Your task to perform on an android device: change notification settings in the gmail app Image 0: 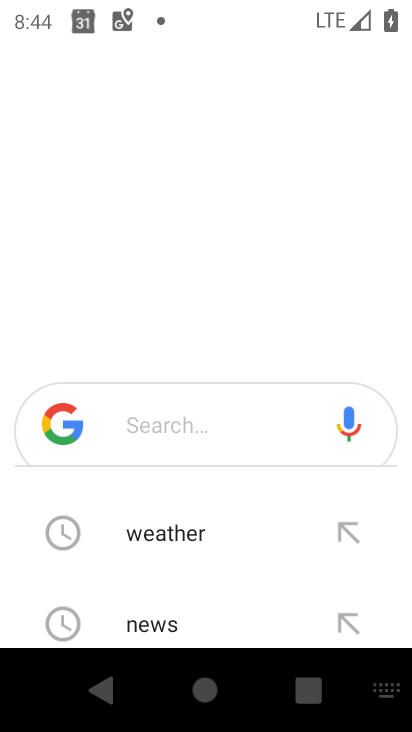
Step 0: press back button
Your task to perform on an android device: change notification settings in the gmail app Image 1: 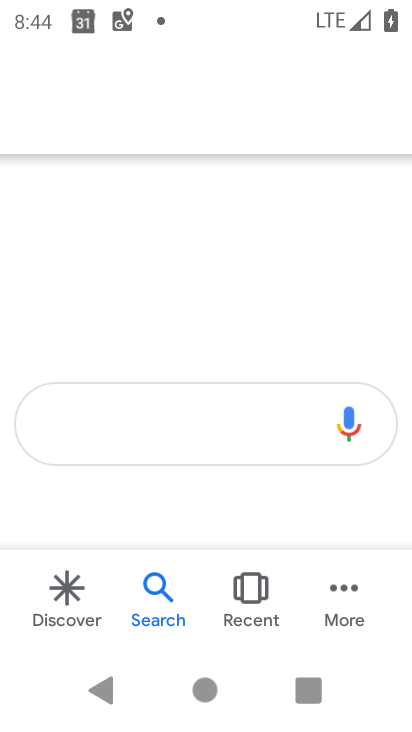
Step 1: press home button
Your task to perform on an android device: change notification settings in the gmail app Image 2: 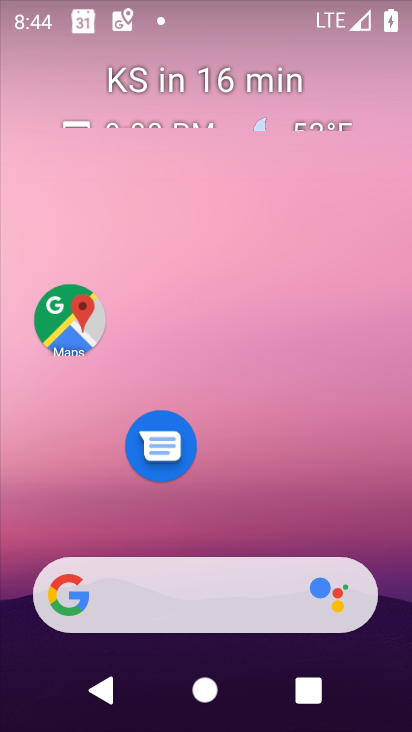
Step 2: drag from (171, 552) to (374, 634)
Your task to perform on an android device: change notification settings in the gmail app Image 3: 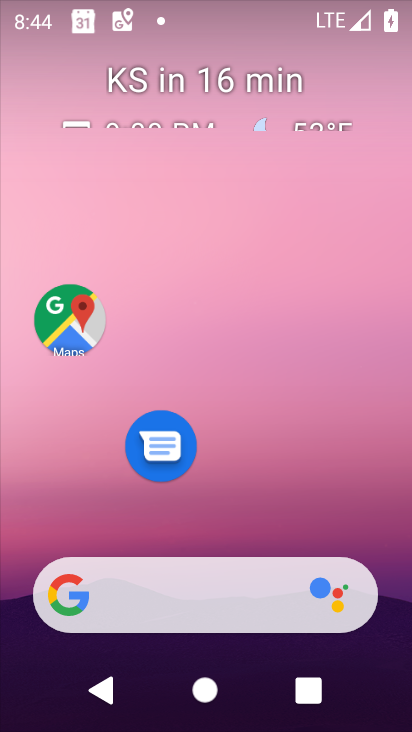
Step 3: click (355, 470)
Your task to perform on an android device: change notification settings in the gmail app Image 4: 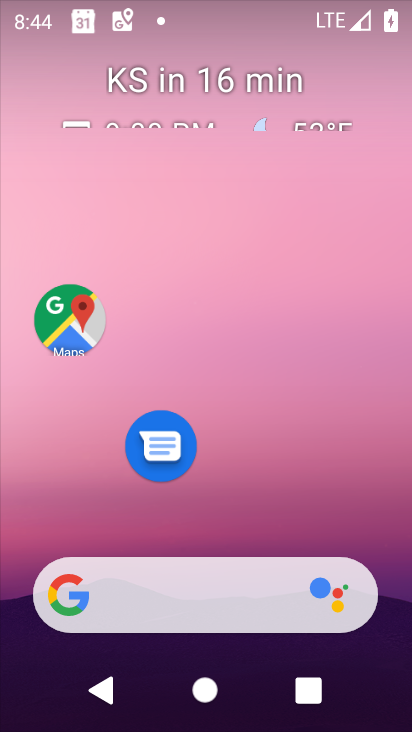
Step 4: drag from (353, 474) to (335, 23)
Your task to perform on an android device: change notification settings in the gmail app Image 5: 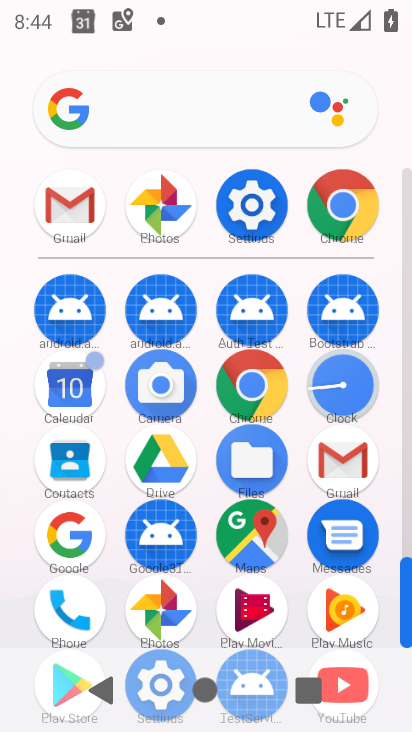
Step 5: click (335, 491)
Your task to perform on an android device: change notification settings in the gmail app Image 6: 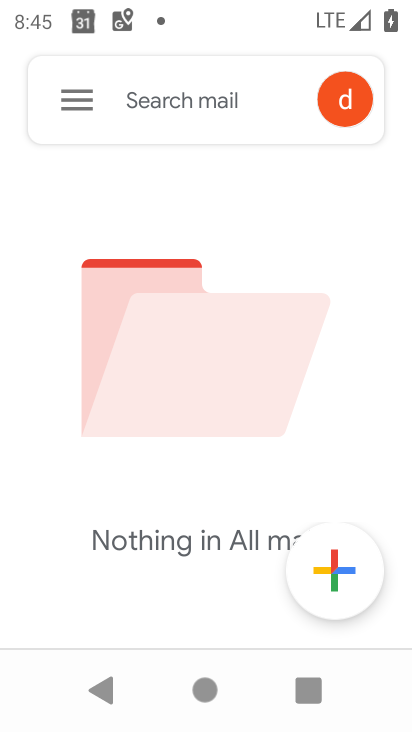
Step 6: click (64, 99)
Your task to perform on an android device: change notification settings in the gmail app Image 7: 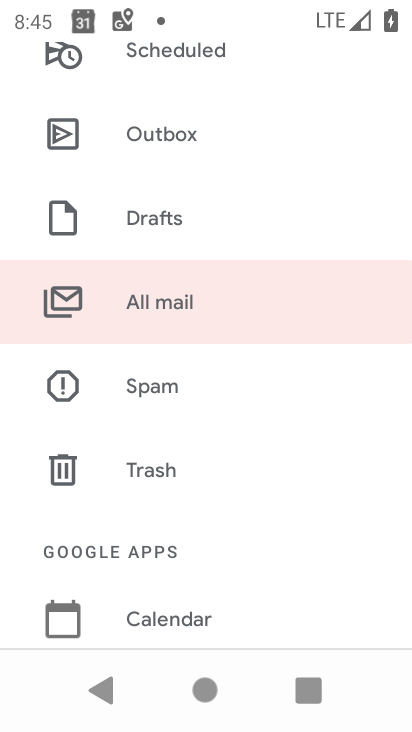
Step 7: drag from (180, 493) to (160, 43)
Your task to perform on an android device: change notification settings in the gmail app Image 8: 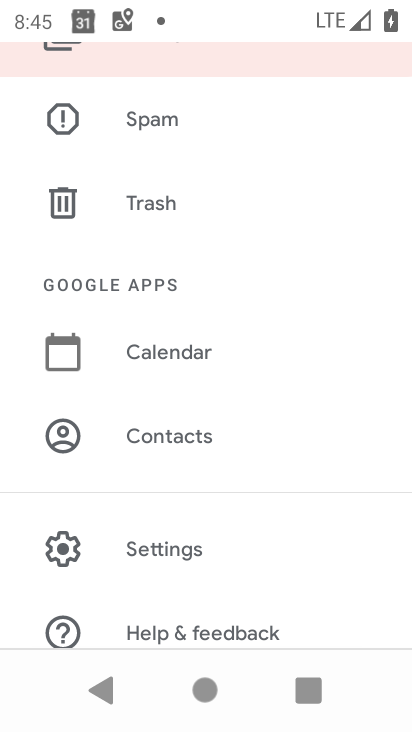
Step 8: click (148, 503)
Your task to perform on an android device: change notification settings in the gmail app Image 9: 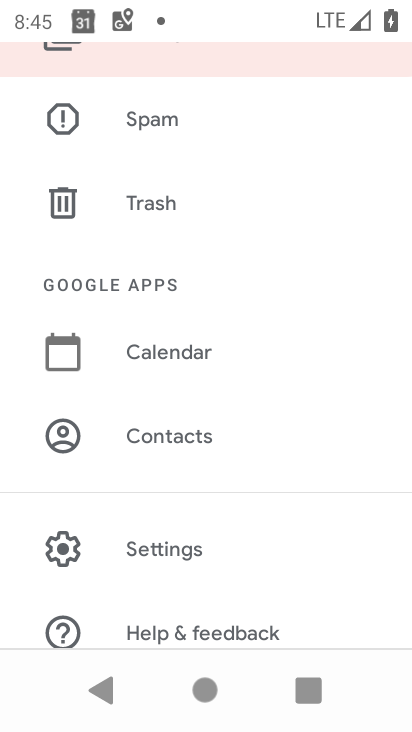
Step 9: click (155, 543)
Your task to perform on an android device: change notification settings in the gmail app Image 10: 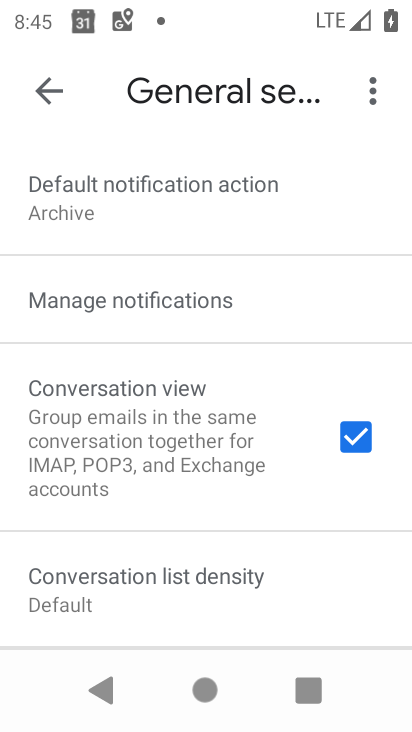
Step 10: click (176, 312)
Your task to perform on an android device: change notification settings in the gmail app Image 11: 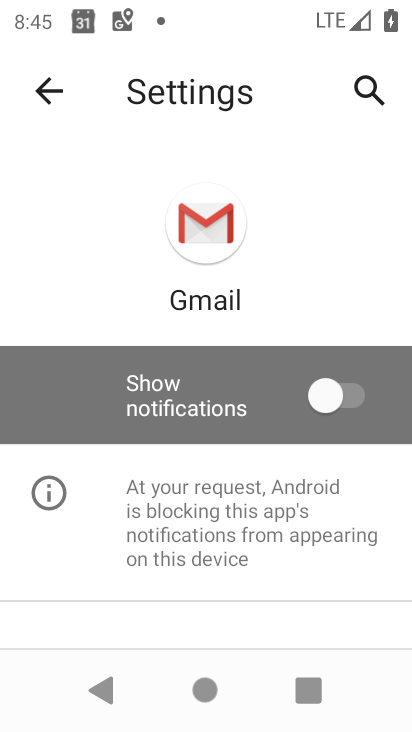
Step 11: click (354, 400)
Your task to perform on an android device: change notification settings in the gmail app Image 12: 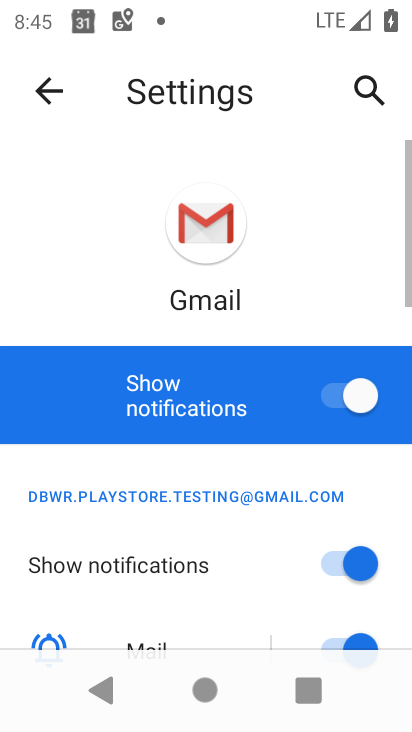
Step 12: task complete